Your task to perform on an android device: change your default location settings in chrome Image 0: 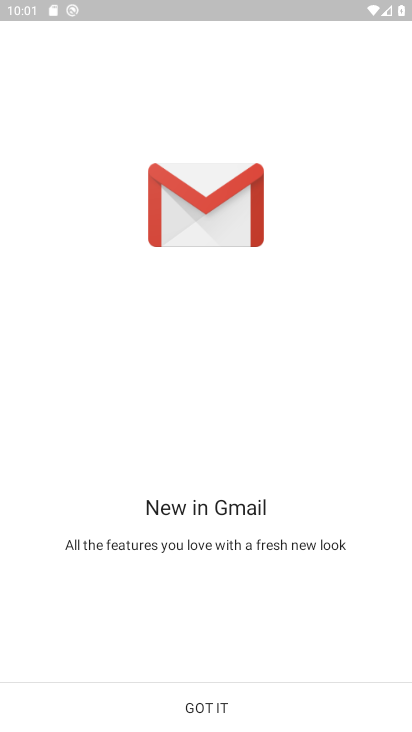
Step 0: press home button
Your task to perform on an android device: change your default location settings in chrome Image 1: 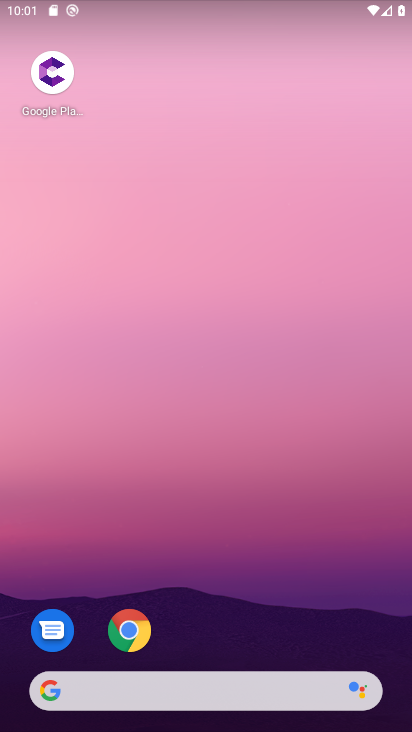
Step 1: click (136, 630)
Your task to perform on an android device: change your default location settings in chrome Image 2: 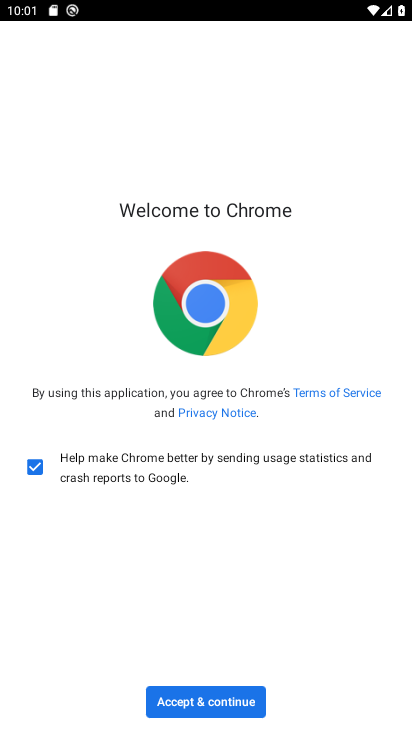
Step 2: click (228, 700)
Your task to perform on an android device: change your default location settings in chrome Image 3: 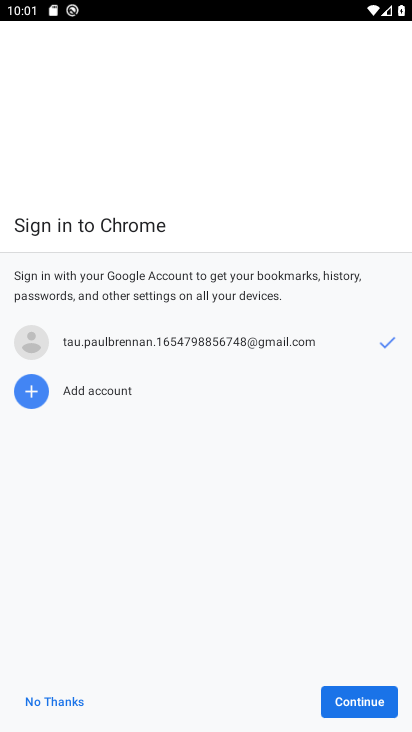
Step 3: click (339, 698)
Your task to perform on an android device: change your default location settings in chrome Image 4: 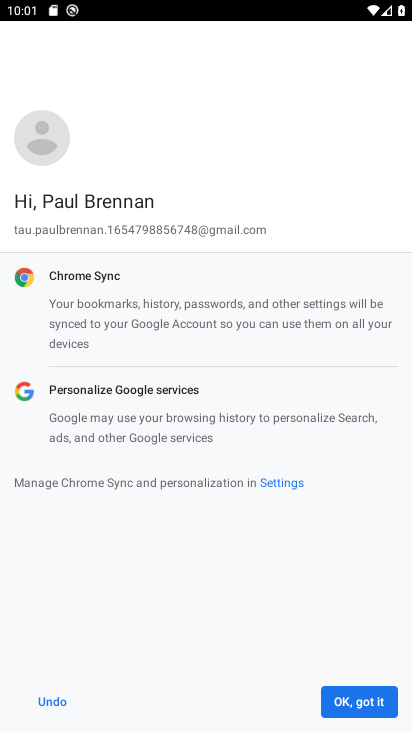
Step 4: click (388, 704)
Your task to perform on an android device: change your default location settings in chrome Image 5: 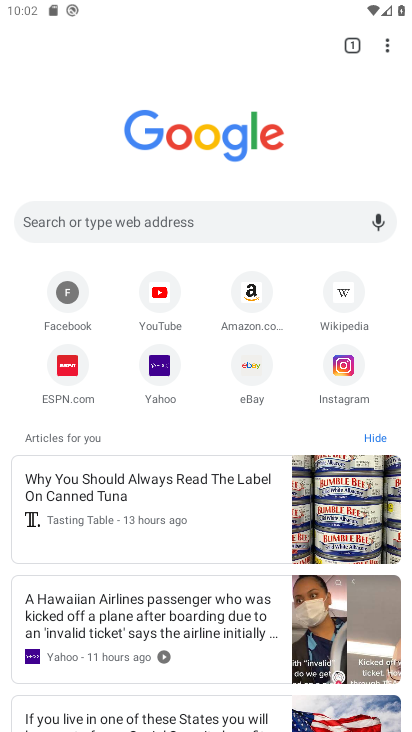
Step 5: click (387, 49)
Your task to perform on an android device: change your default location settings in chrome Image 6: 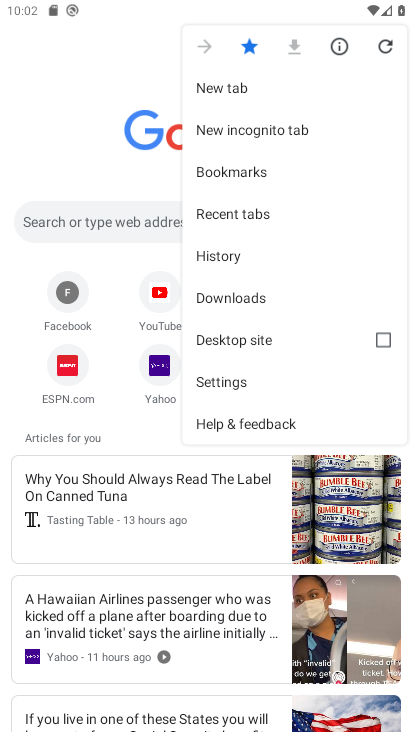
Step 6: click (231, 381)
Your task to perform on an android device: change your default location settings in chrome Image 7: 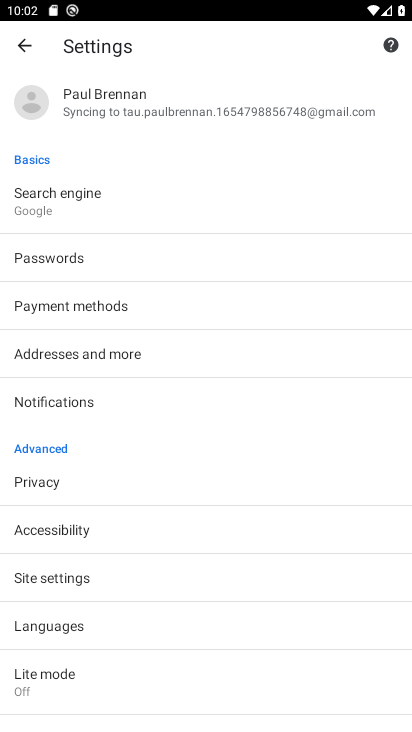
Step 7: click (81, 577)
Your task to perform on an android device: change your default location settings in chrome Image 8: 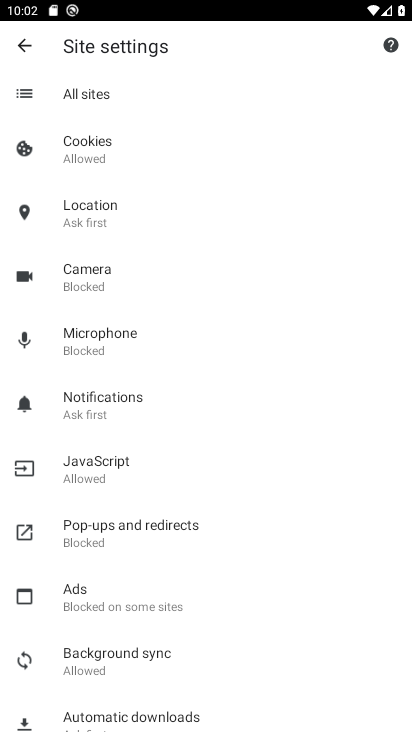
Step 8: click (107, 213)
Your task to perform on an android device: change your default location settings in chrome Image 9: 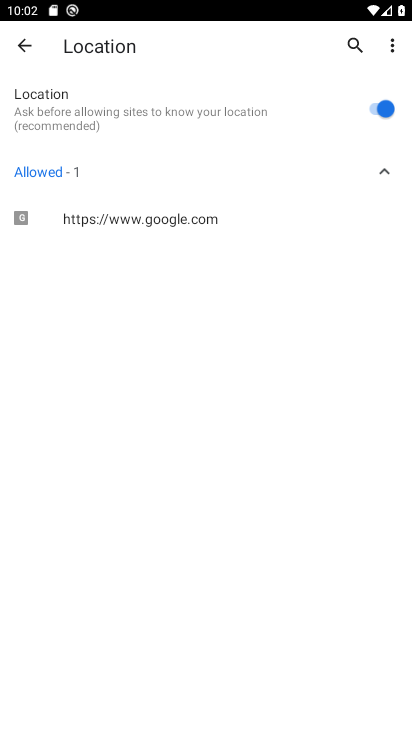
Step 9: click (377, 95)
Your task to perform on an android device: change your default location settings in chrome Image 10: 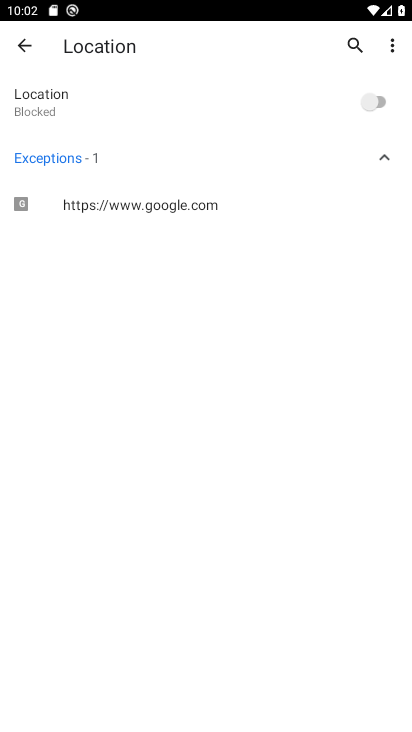
Step 10: task complete